Your task to perform on an android device: show emergency info Image 0: 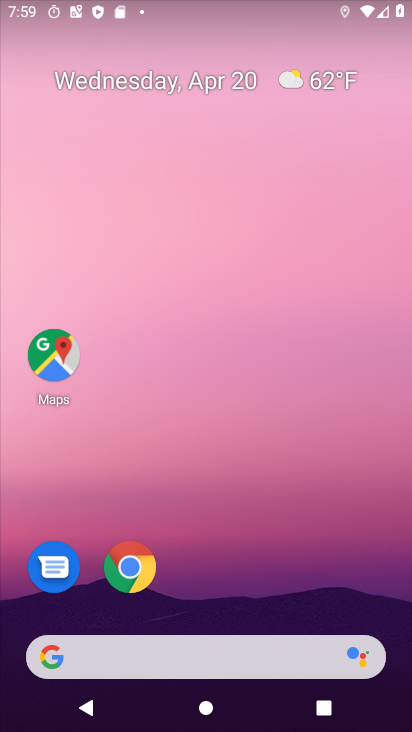
Step 0: drag from (338, 618) to (410, 10)
Your task to perform on an android device: show emergency info Image 1: 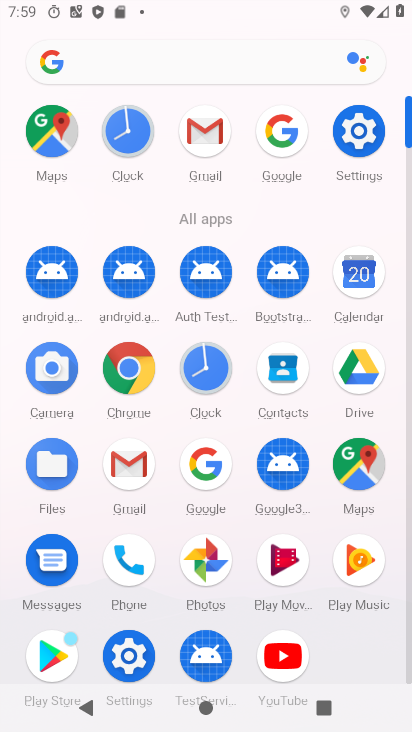
Step 1: click (358, 134)
Your task to perform on an android device: show emergency info Image 2: 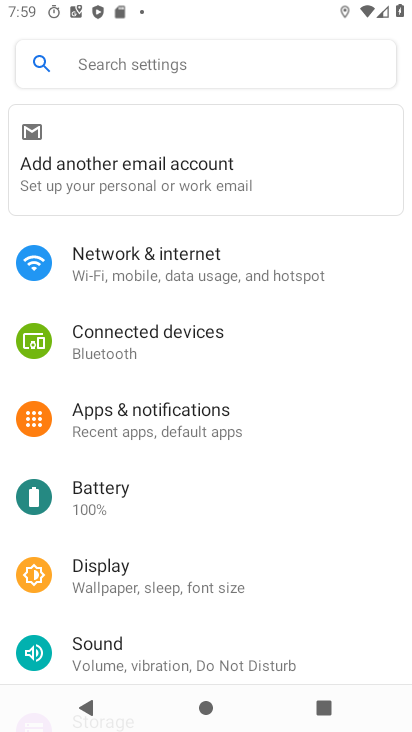
Step 2: drag from (395, 595) to (372, 95)
Your task to perform on an android device: show emergency info Image 3: 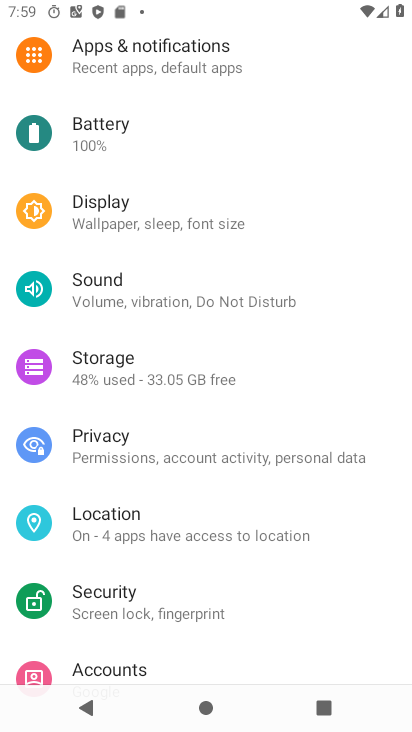
Step 3: drag from (390, 521) to (375, 40)
Your task to perform on an android device: show emergency info Image 4: 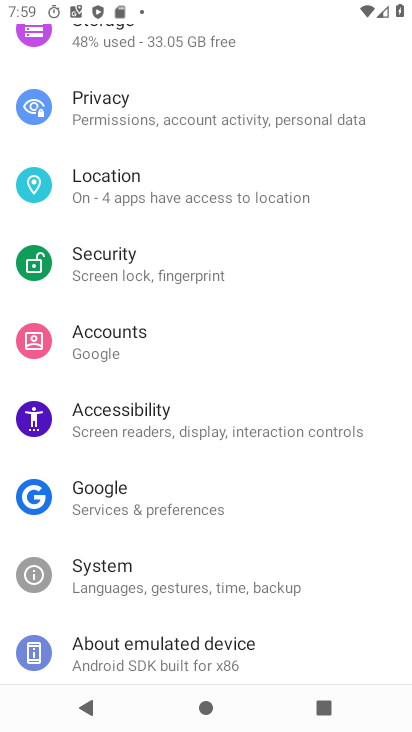
Step 4: click (188, 643)
Your task to perform on an android device: show emergency info Image 5: 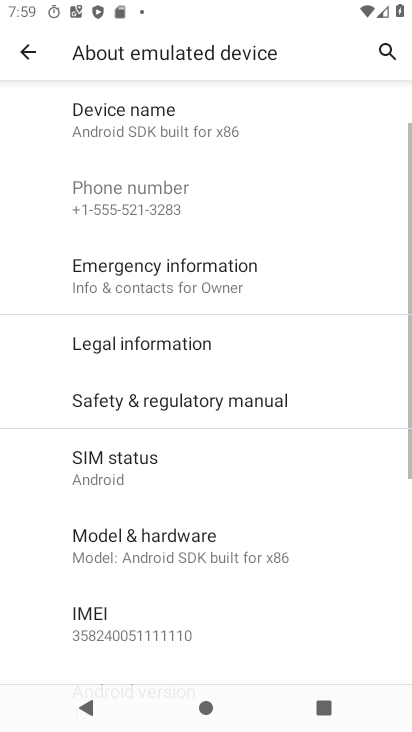
Step 5: click (137, 269)
Your task to perform on an android device: show emergency info Image 6: 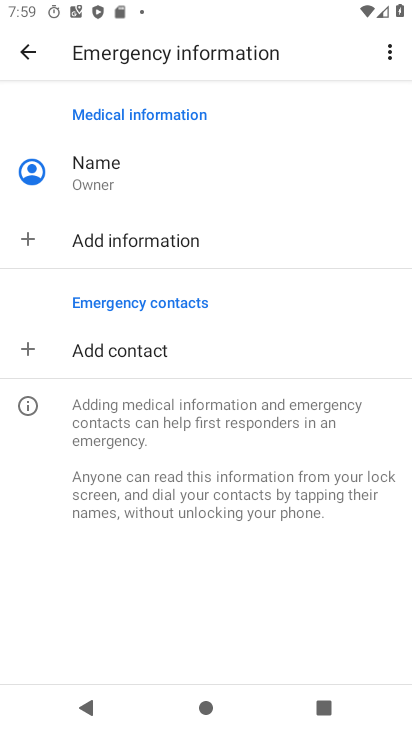
Step 6: task complete